Your task to perform on an android device: Go to CNN.com Image 0: 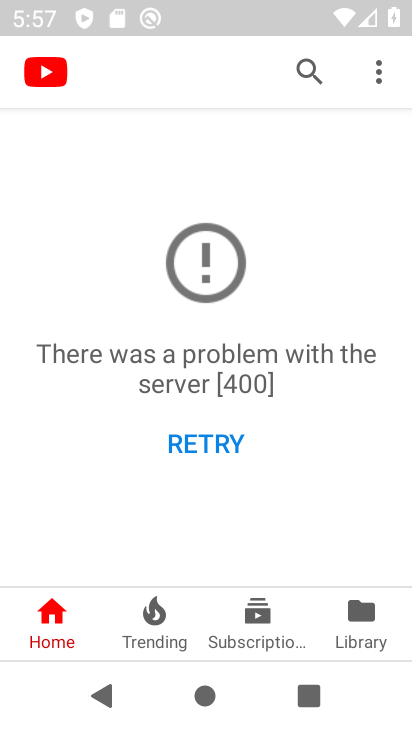
Step 0: press home button
Your task to perform on an android device: Go to CNN.com Image 1: 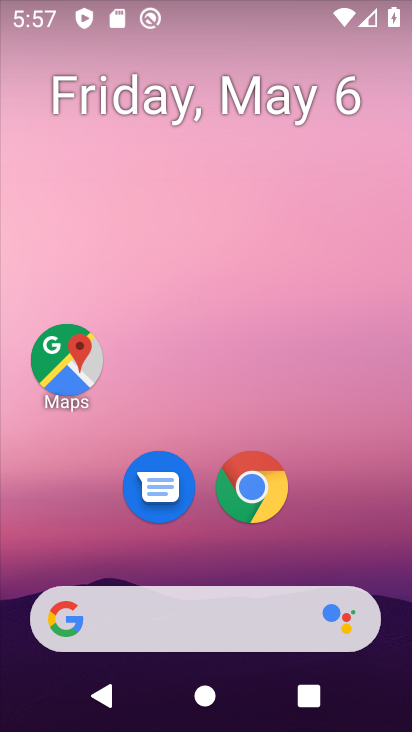
Step 1: click (248, 487)
Your task to perform on an android device: Go to CNN.com Image 2: 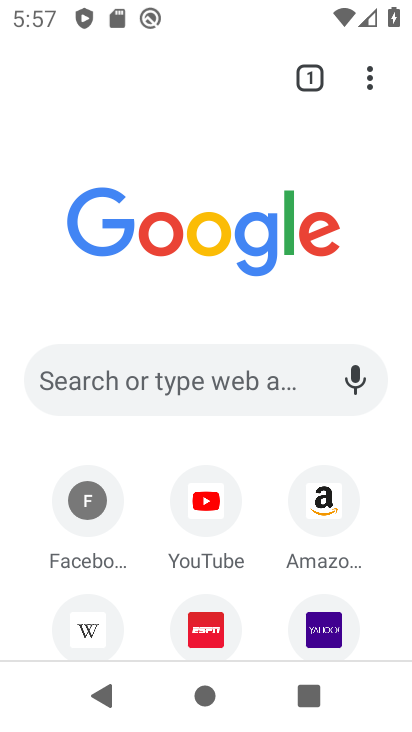
Step 2: click (200, 376)
Your task to perform on an android device: Go to CNN.com Image 3: 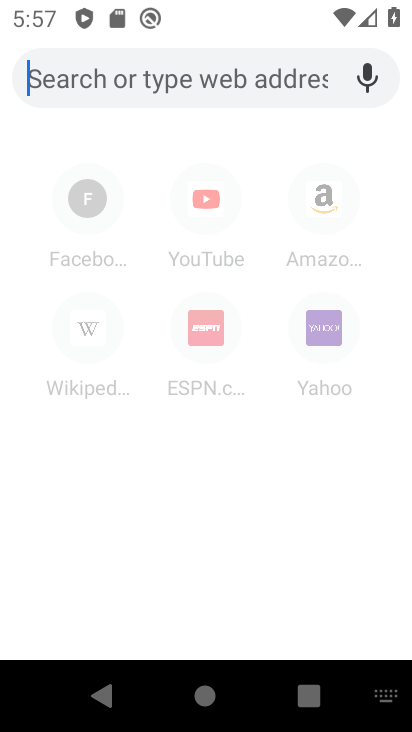
Step 3: type " CNN.com"
Your task to perform on an android device: Go to CNN.com Image 4: 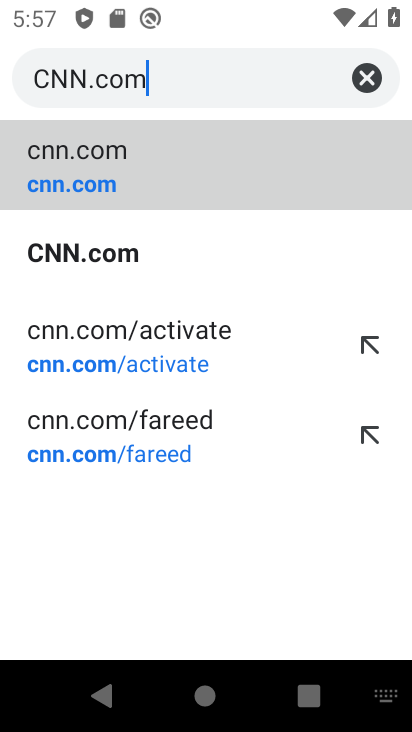
Step 4: click (61, 176)
Your task to perform on an android device: Go to CNN.com Image 5: 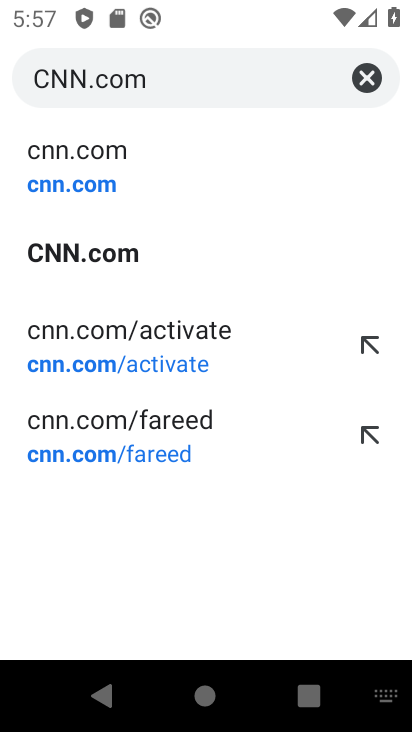
Step 5: click (71, 181)
Your task to perform on an android device: Go to CNN.com Image 6: 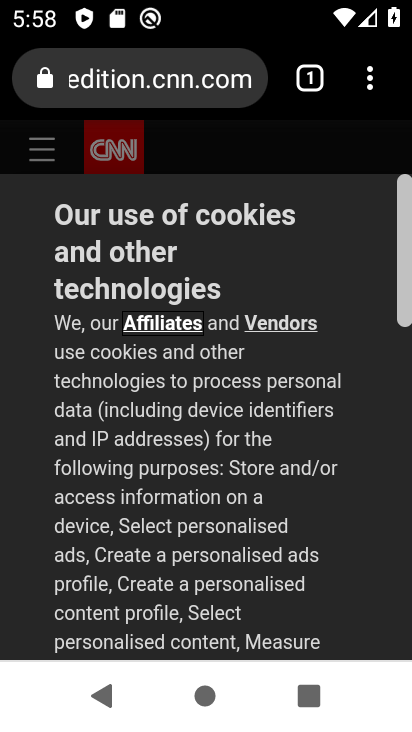
Step 6: task complete